Your task to perform on an android device: Toggle the flashlight Image 0: 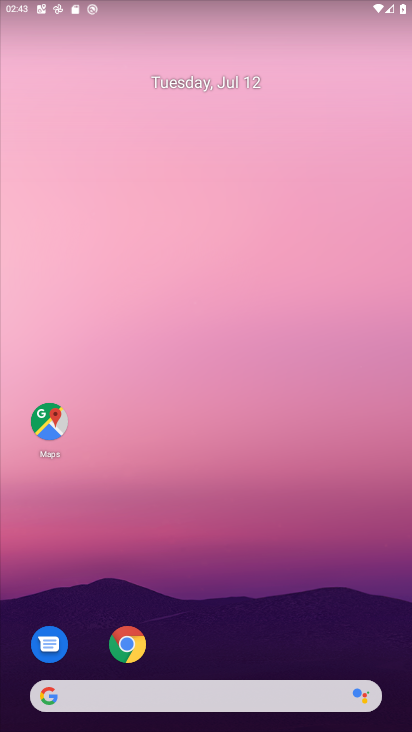
Step 0: drag from (202, 665) to (181, 151)
Your task to perform on an android device: Toggle the flashlight Image 1: 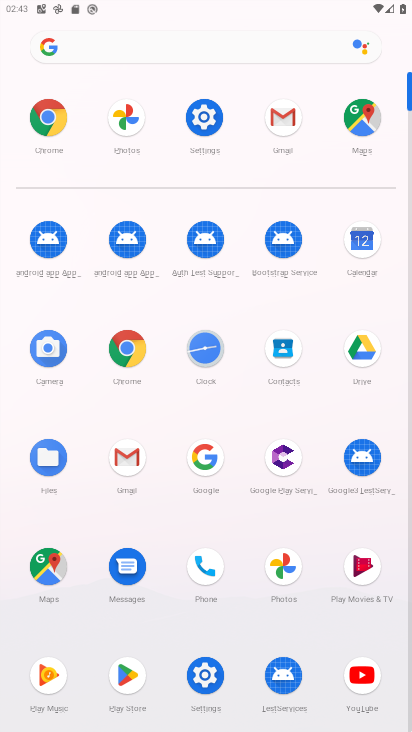
Step 1: click (207, 121)
Your task to perform on an android device: Toggle the flashlight Image 2: 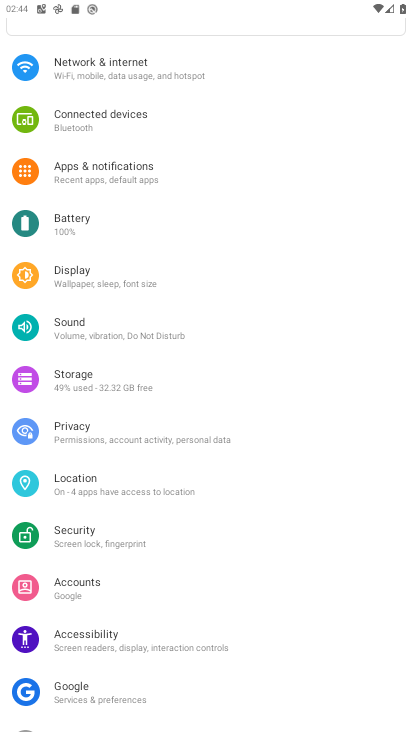
Step 2: task complete